Your task to perform on an android device: toggle javascript in the chrome app Image 0: 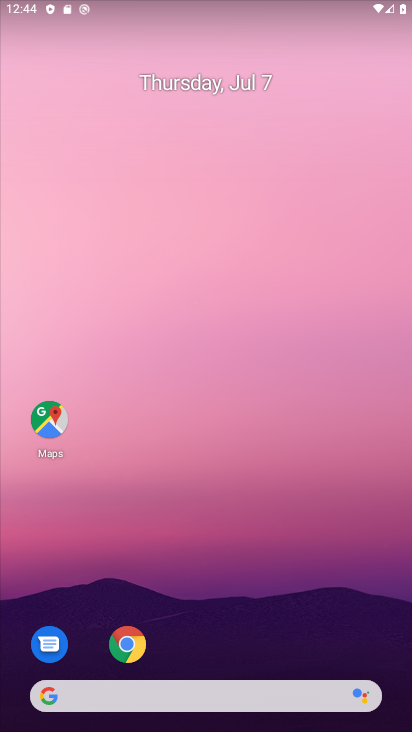
Step 0: click (132, 643)
Your task to perform on an android device: toggle javascript in the chrome app Image 1: 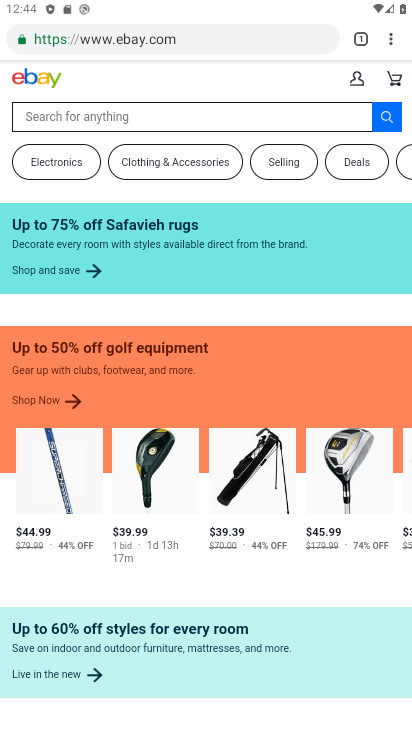
Step 1: click (384, 39)
Your task to perform on an android device: toggle javascript in the chrome app Image 2: 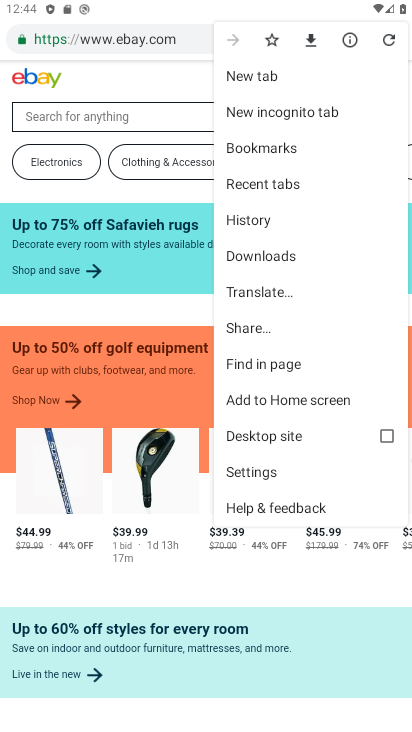
Step 2: click (299, 468)
Your task to perform on an android device: toggle javascript in the chrome app Image 3: 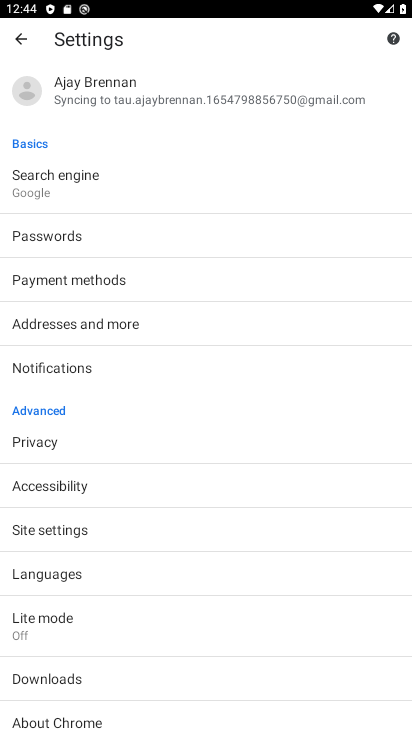
Step 3: click (201, 533)
Your task to perform on an android device: toggle javascript in the chrome app Image 4: 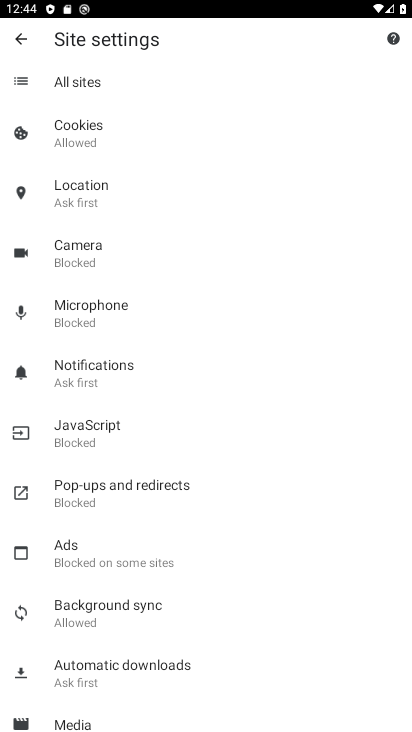
Step 4: click (165, 432)
Your task to perform on an android device: toggle javascript in the chrome app Image 5: 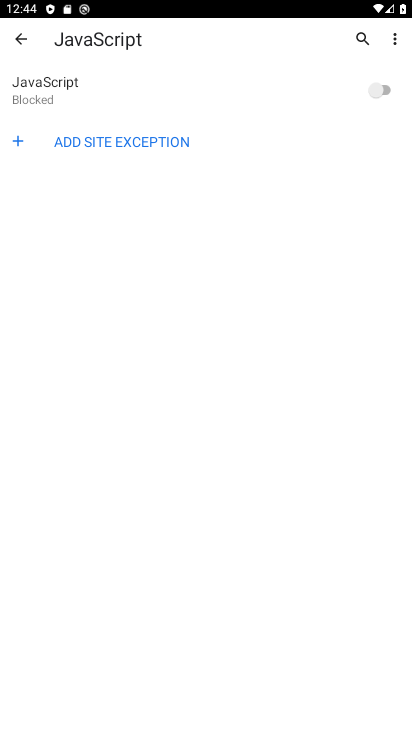
Step 5: click (386, 87)
Your task to perform on an android device: toggle javascript in the chrome app Image 6: 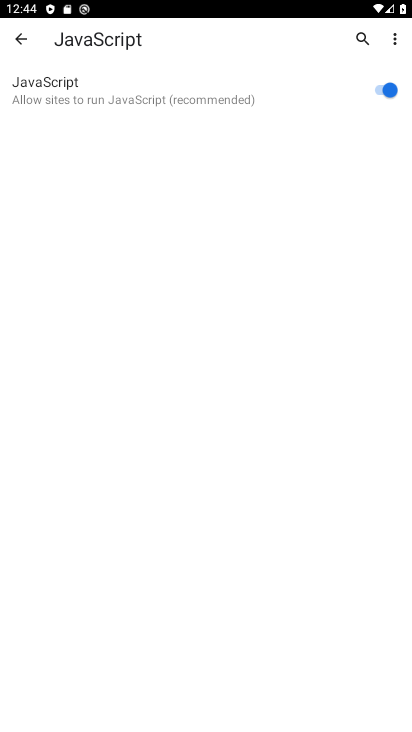
Step 6: task complete